Your task to perform on an android device: install app "Mercado Libre" Image 0: 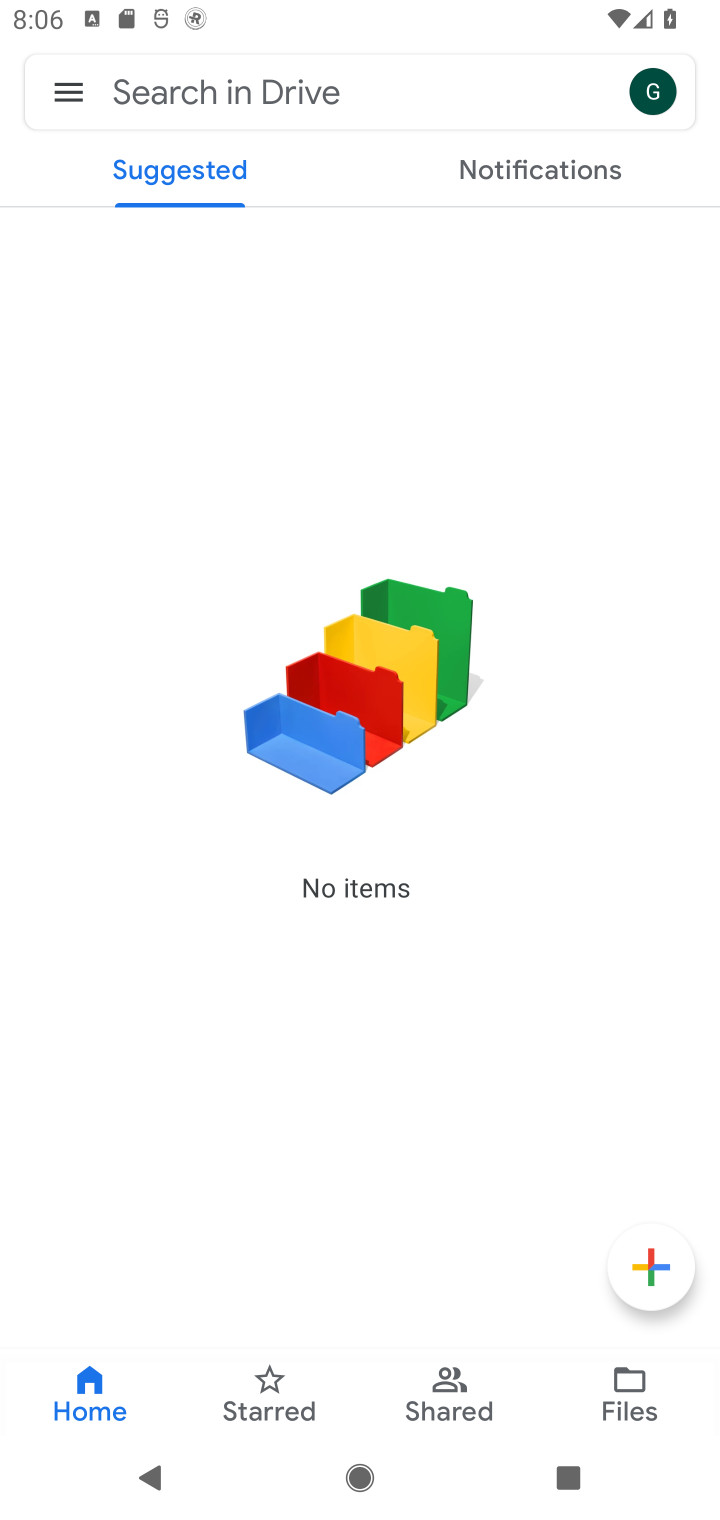
Step 0: press home button
Your task to perform on an android device: install app "Mercado Libre" Image 1: 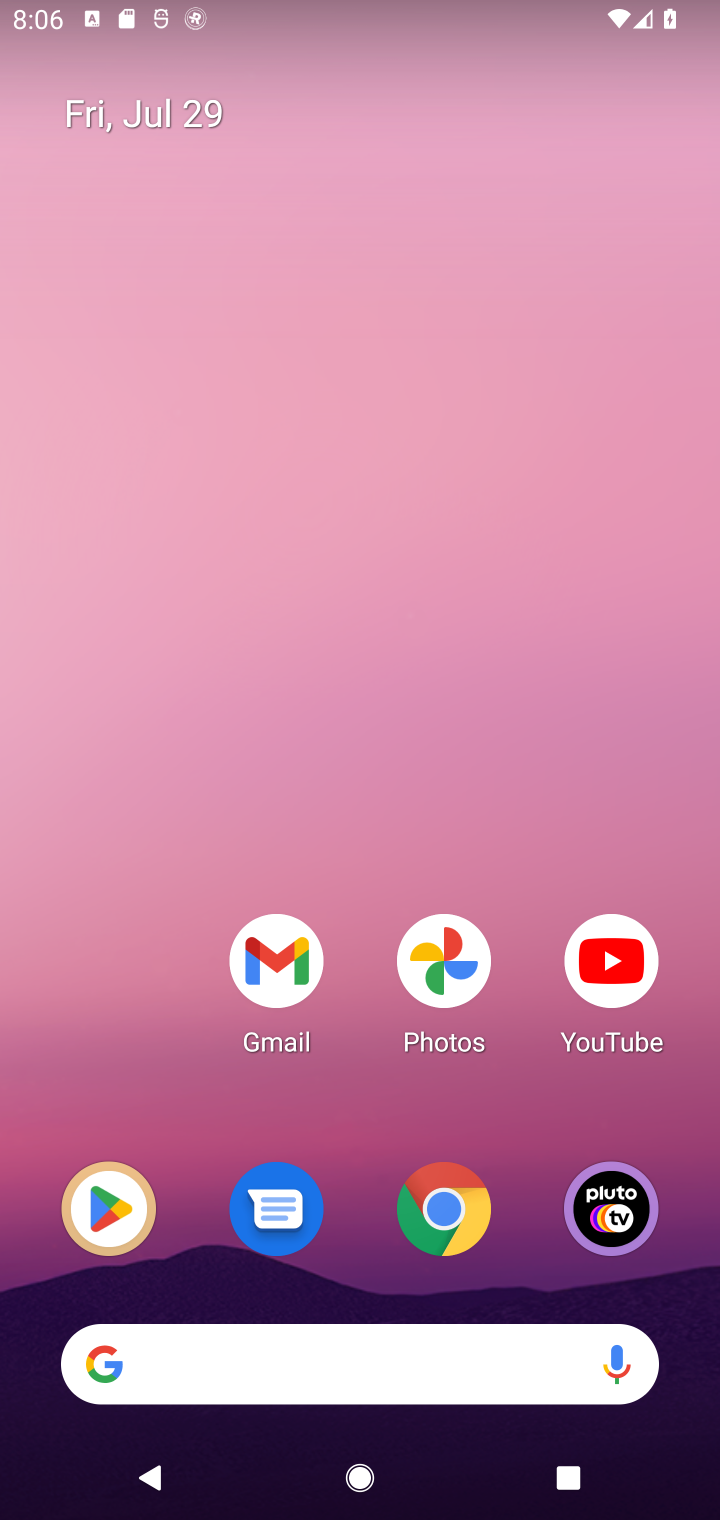
Step 1: click (88, 1222)
Your task to perform on an android device: install app "Mercado Libre" Image 2: 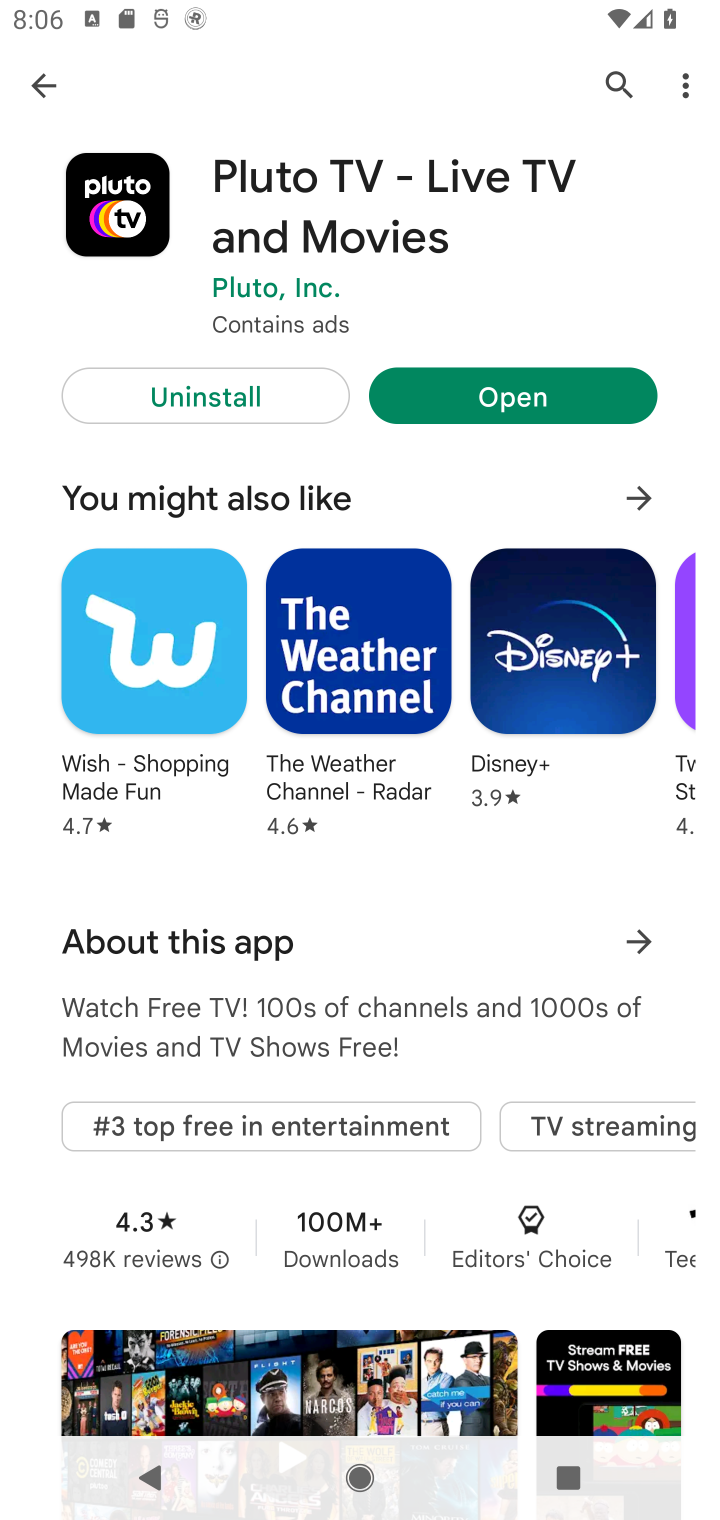
Step 2: click (603, 94)
Your task to perform on an android device: install app "Mercado Libre" Image 3: 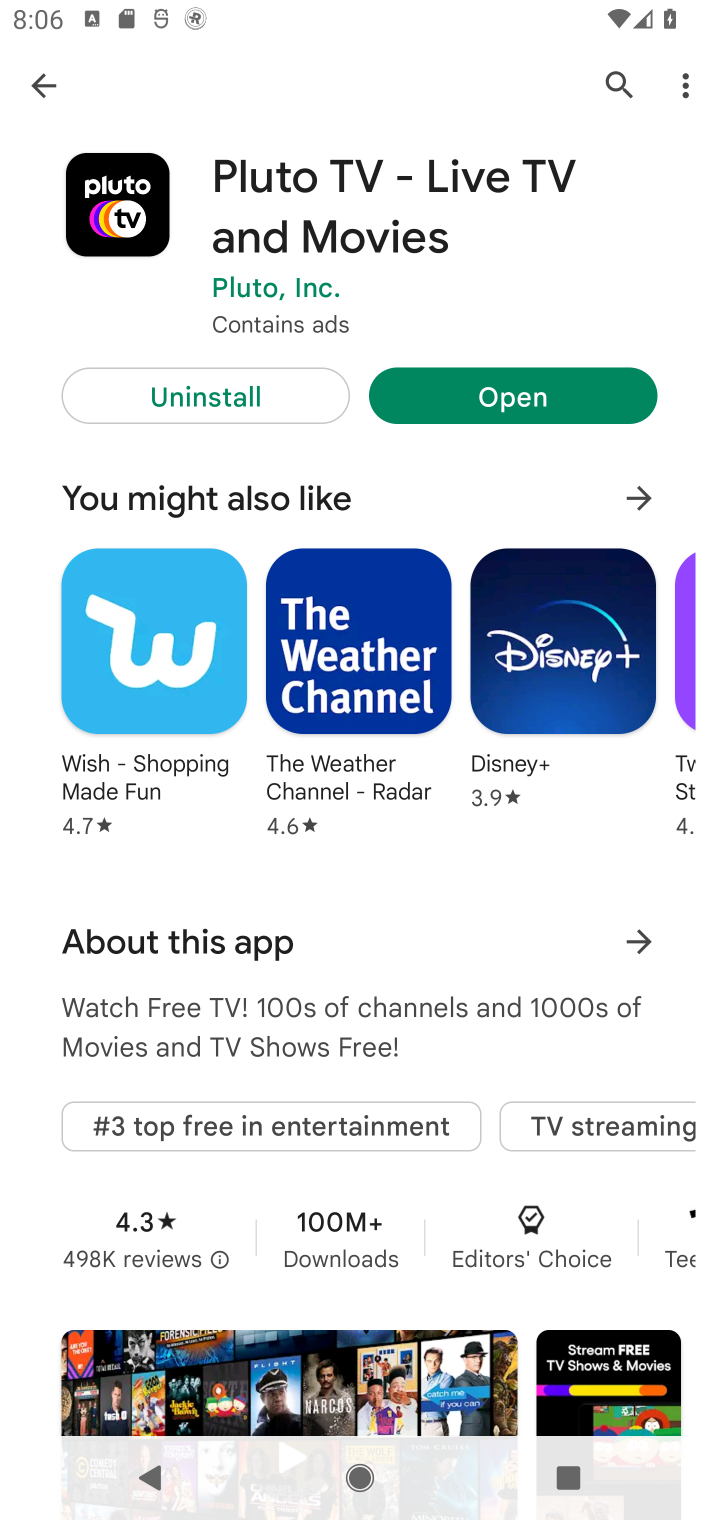
Step 3: click (612, 81)
Your task to perform on an android device: install app "Mercado Libre" Image 4: 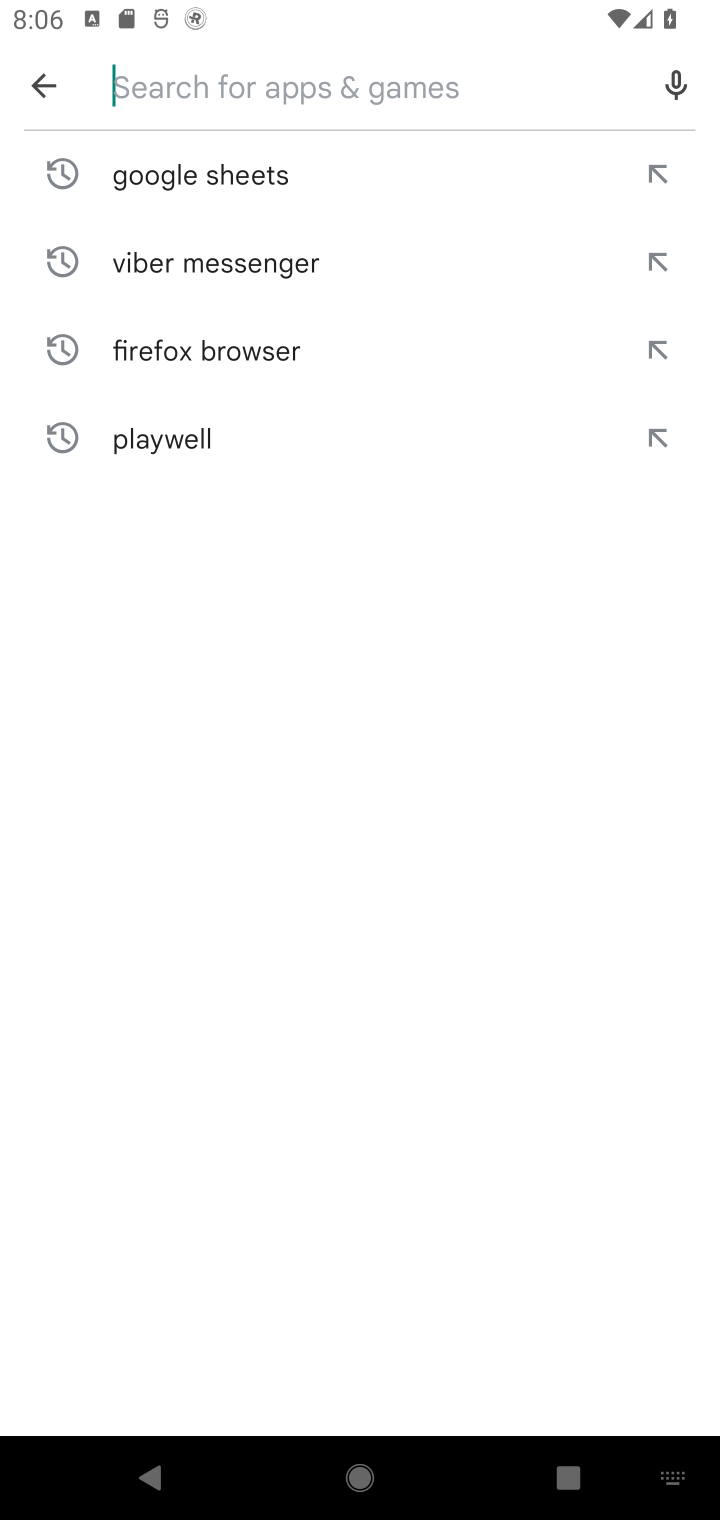
Step 4: type "Mercado Libre"
Your task to perform on an android device: install app "Mercado Libre" Image 5: 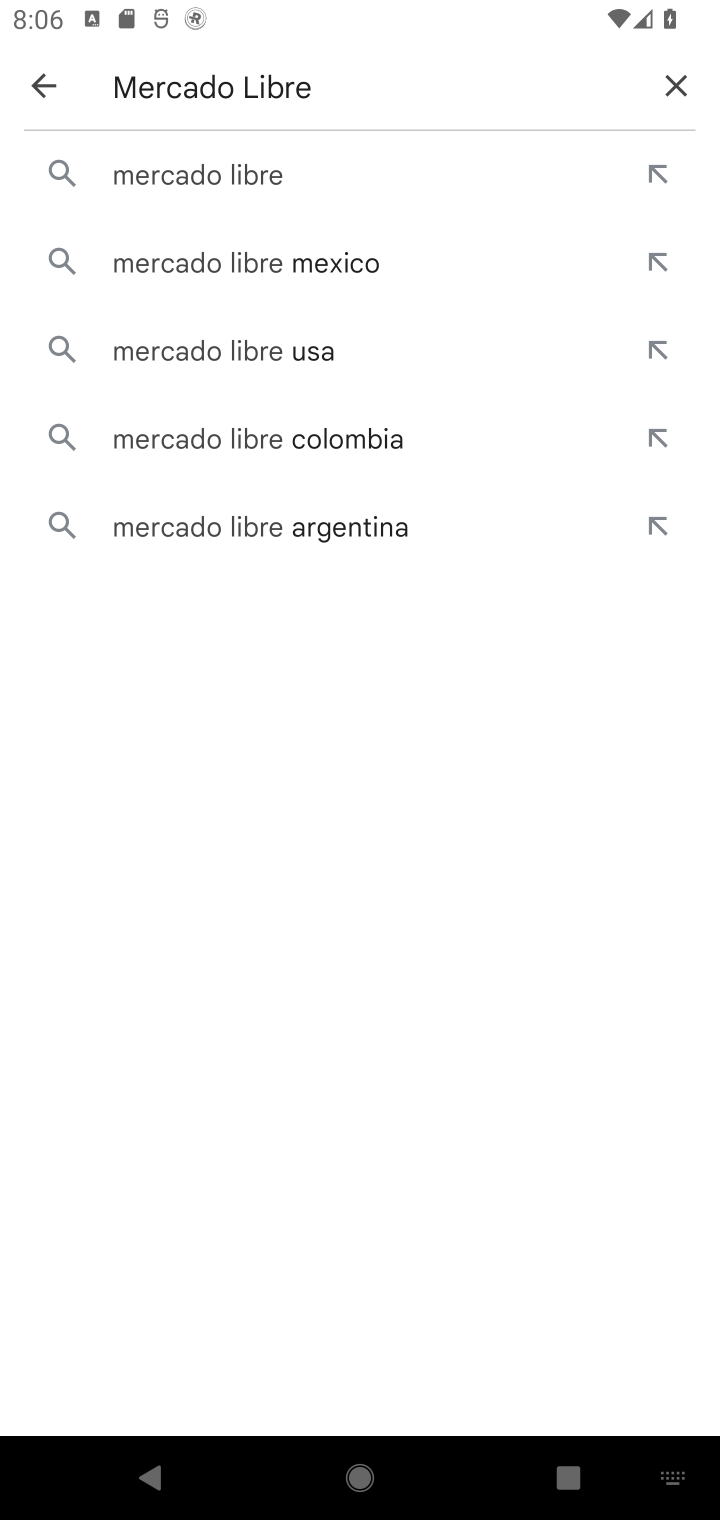
Step 5: click (148, 188)
Your task to perform on an android device: install app "Mercado Libre" Image 6: 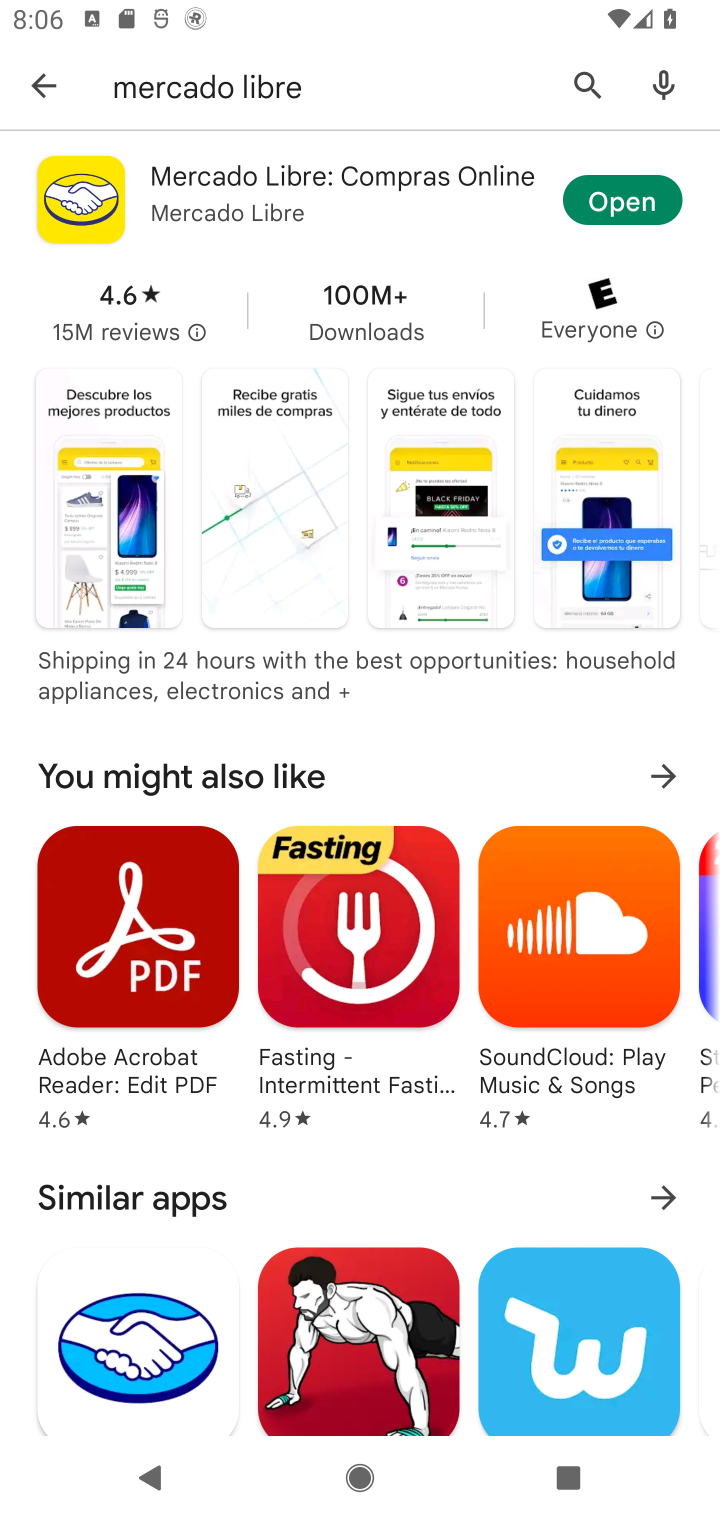
Step 6: task complete